Your task to perform on an android device: Search for pizza restaurants on Maps Image 0: 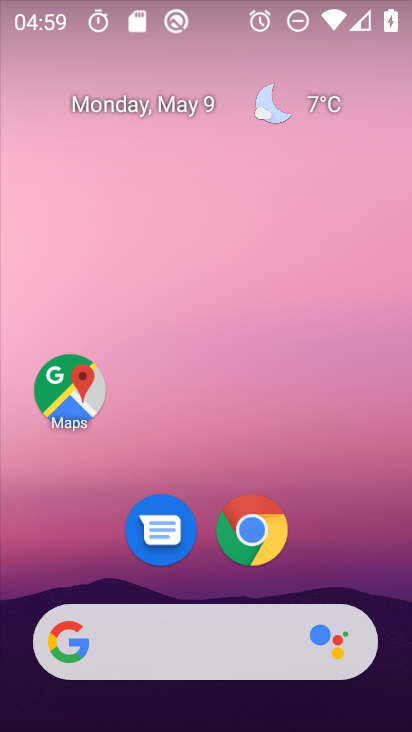
Step 0: click (66, 376)
Your task to perform on an android device: Search for pizza restaurants on Maps Image 1: 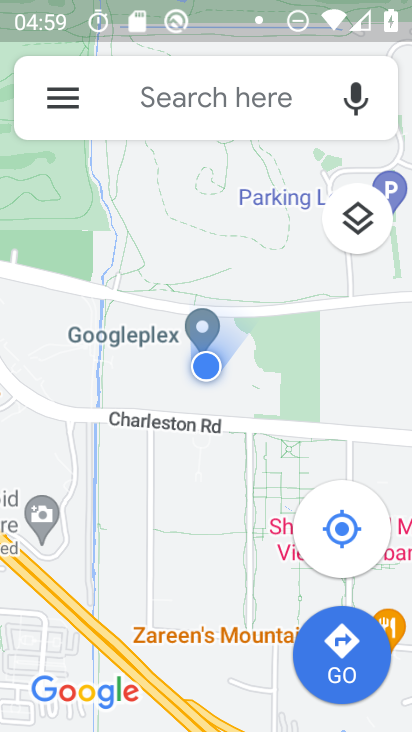
Step 1: click (172, 88)
Your task to perform on an android device: Search for pizza restaurants on Maps Image 2: 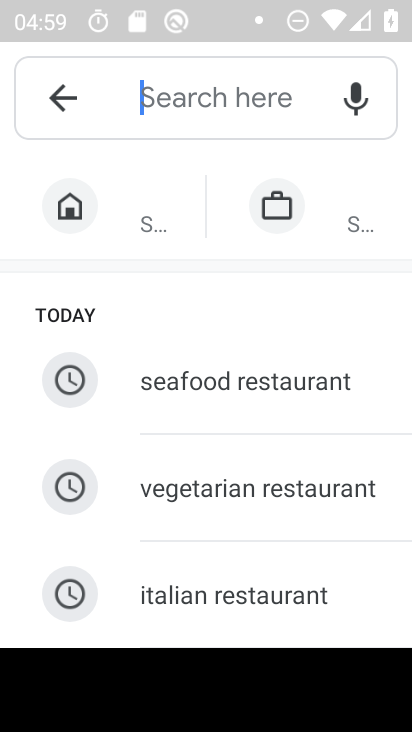
Step 2: drag from (212, 602) to (306, 227)
Your task to perform on an android device: Search for pizza restaurants on Maps Image 3: 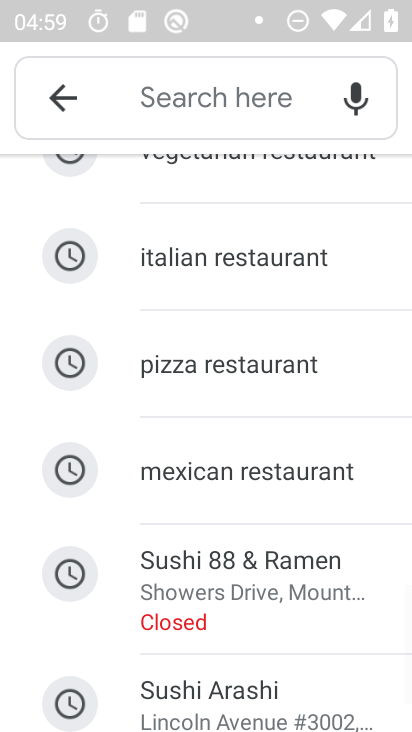
Step 3: click (220, 372)
Your task to perform on an android device: Search for pizza restaurants on Maps Image 4: 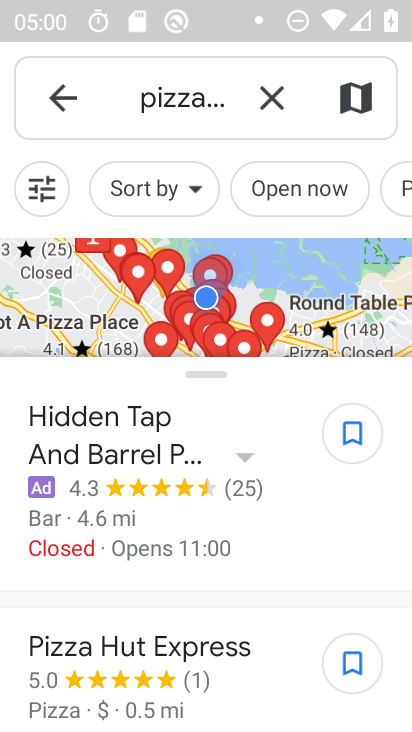
Step 4: task complete